Your task to perform on an android device: Open Yahoo.com Image 0: 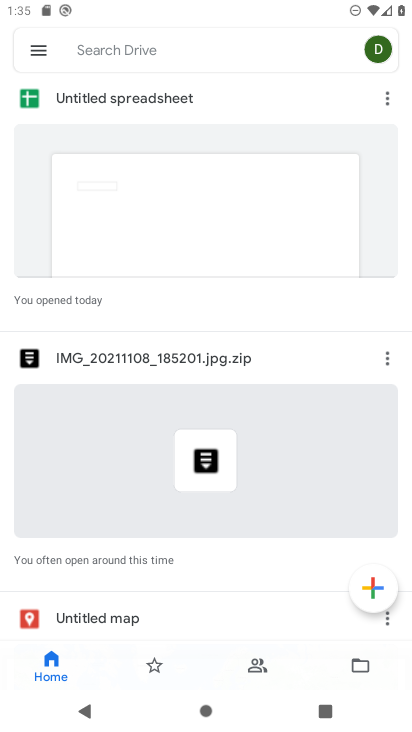
Step 0: press home button
Your task to perform on an android device: Open Yahoo.com Image 1: 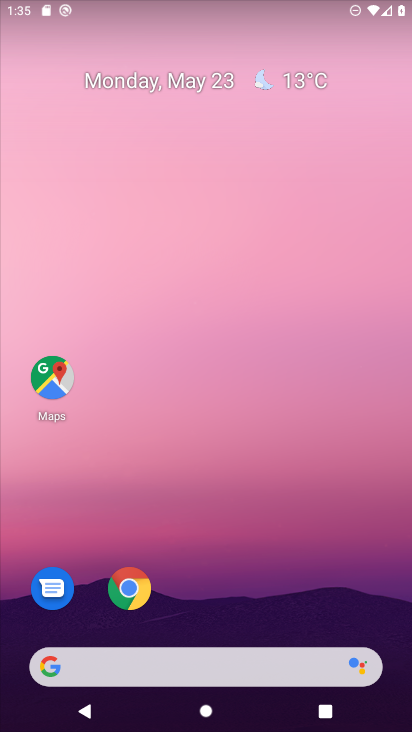
Step 1: drag from (204, 653) to (206, 386)
Your task to perform on an android device: Open Yahoo.com Image 2: 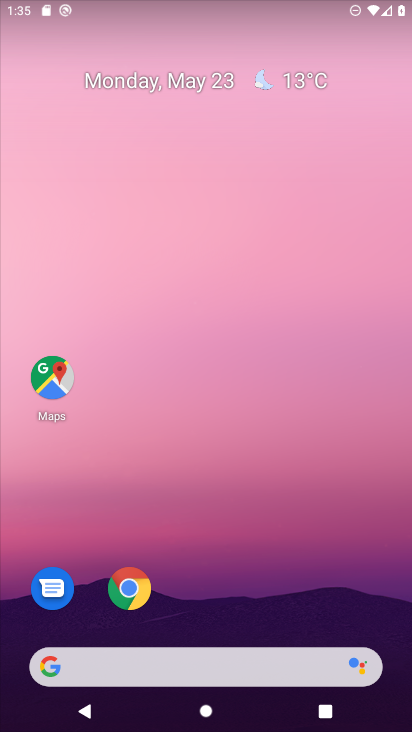
Step 2: click (138, 588)
Your task to perform on an android device: Open Yahoo.com Image 3: 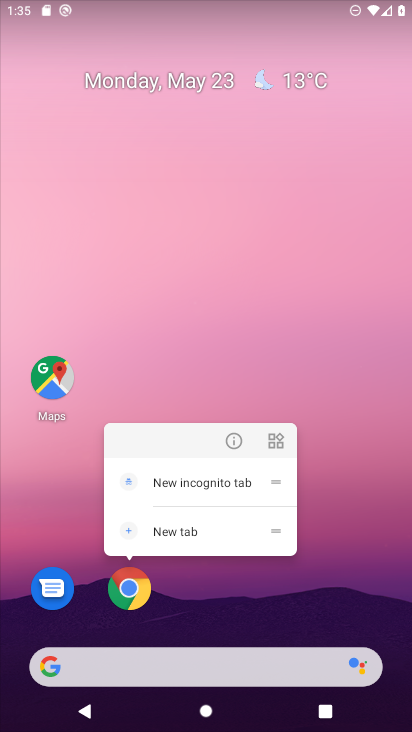
Step 3: click (125, 587)
Your task to perform on an android device: Open Yahoo.com Image 4: 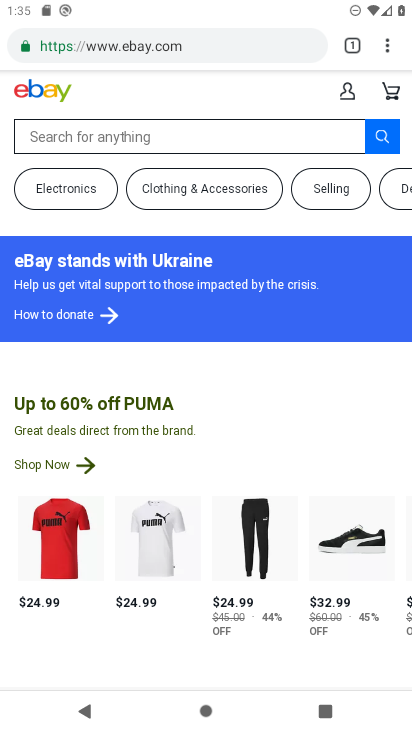
Step 4: click (237, 46)
Your task to perform on an android device: Open Yahoo.com Image 5: 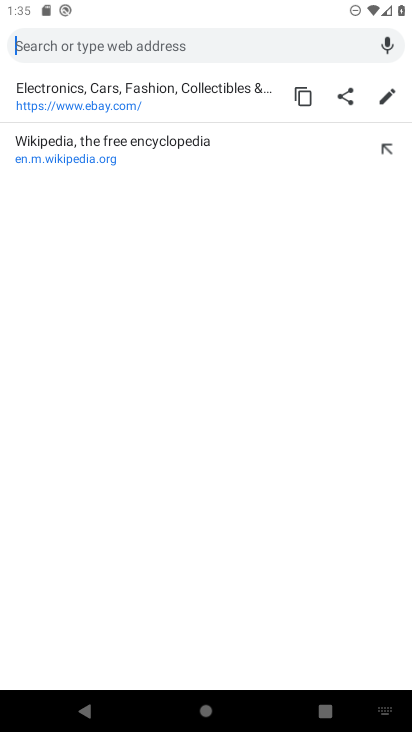
Step 5: click (77, 42)
Your task to perform on an android device: Open Yahoo.com Image 6: 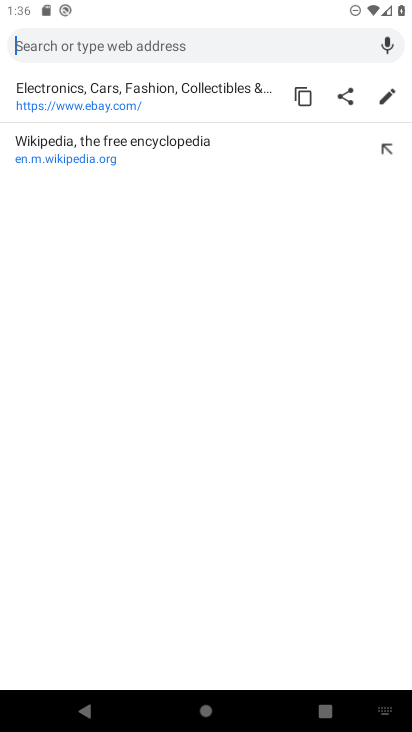
Step 6: press home button
Your task to perform on an android device: Open Yahoo.com Image 7: 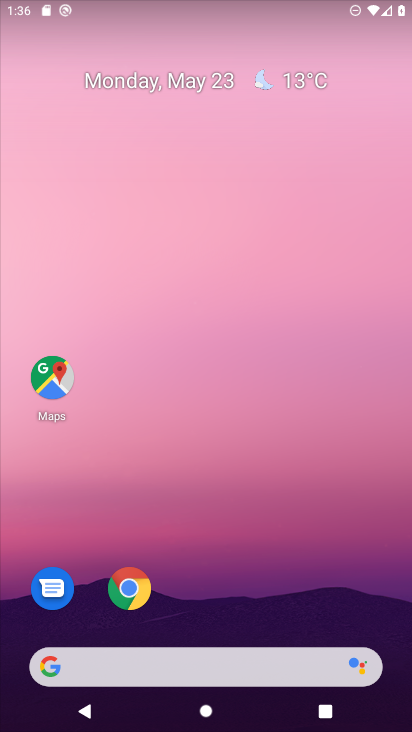
Step 7: click (130, 597)
Your task to perform on an android device: Open Yahoo.com Image 8: 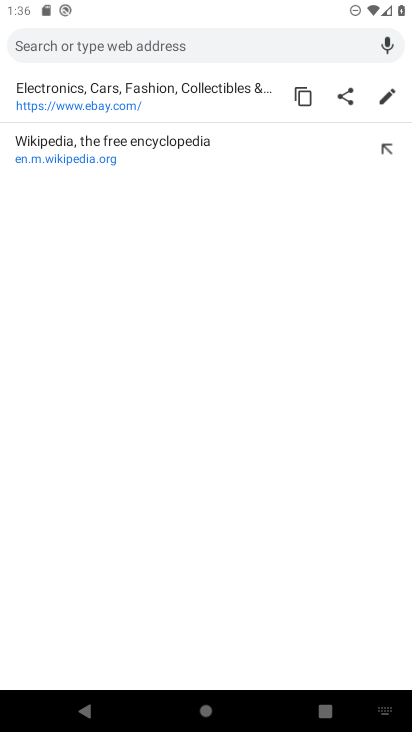
Step 8: click (233, 42)
Your task to perform on an android device: Open Yahoo.com Image 9: 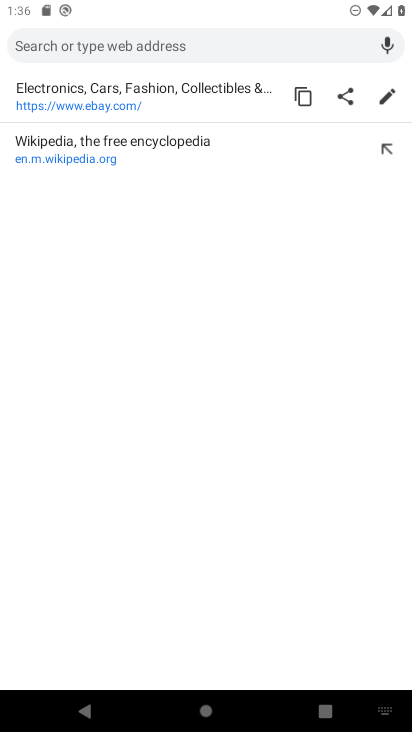
Step 9: type "yahoo.com"
Your task to perform on an android device: Open Yahoo.com Image 10: 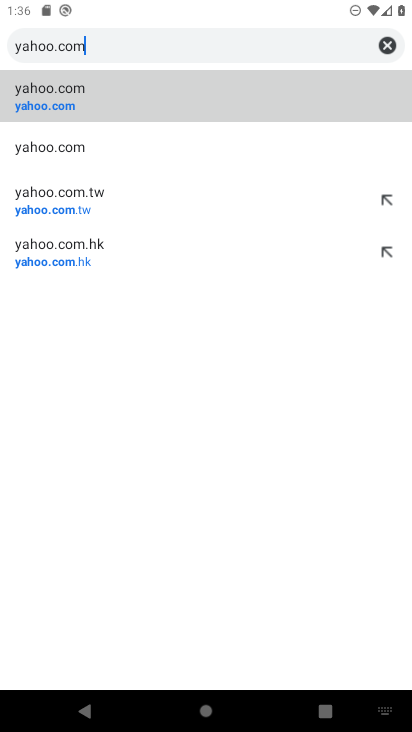
Step 10: click (84, 100)
Your task to perform on an android device: Open Yahoo.com Image 11: 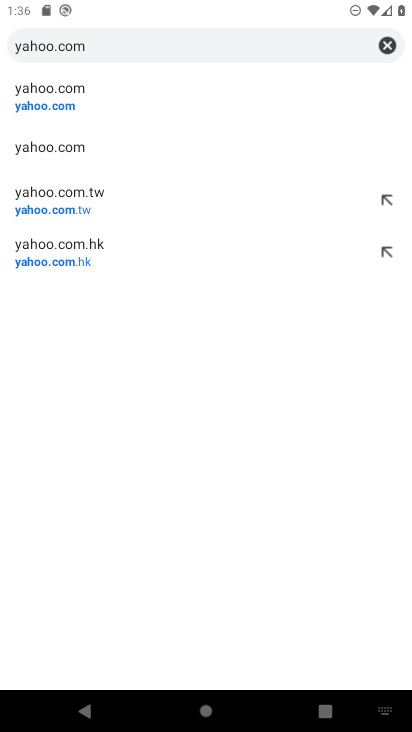
Step 11: click (45, 107)
Your task to perform on an android device: Open Yahoo.com Image 12: 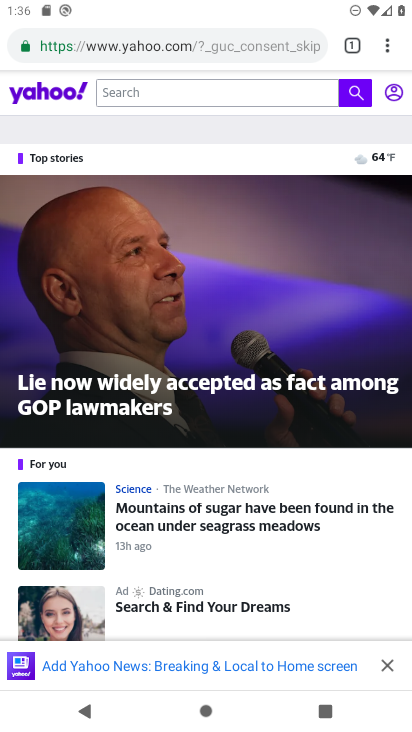
Step 12: task complete